Your task to perform on an android device: Is it going to rain today? Image 0: 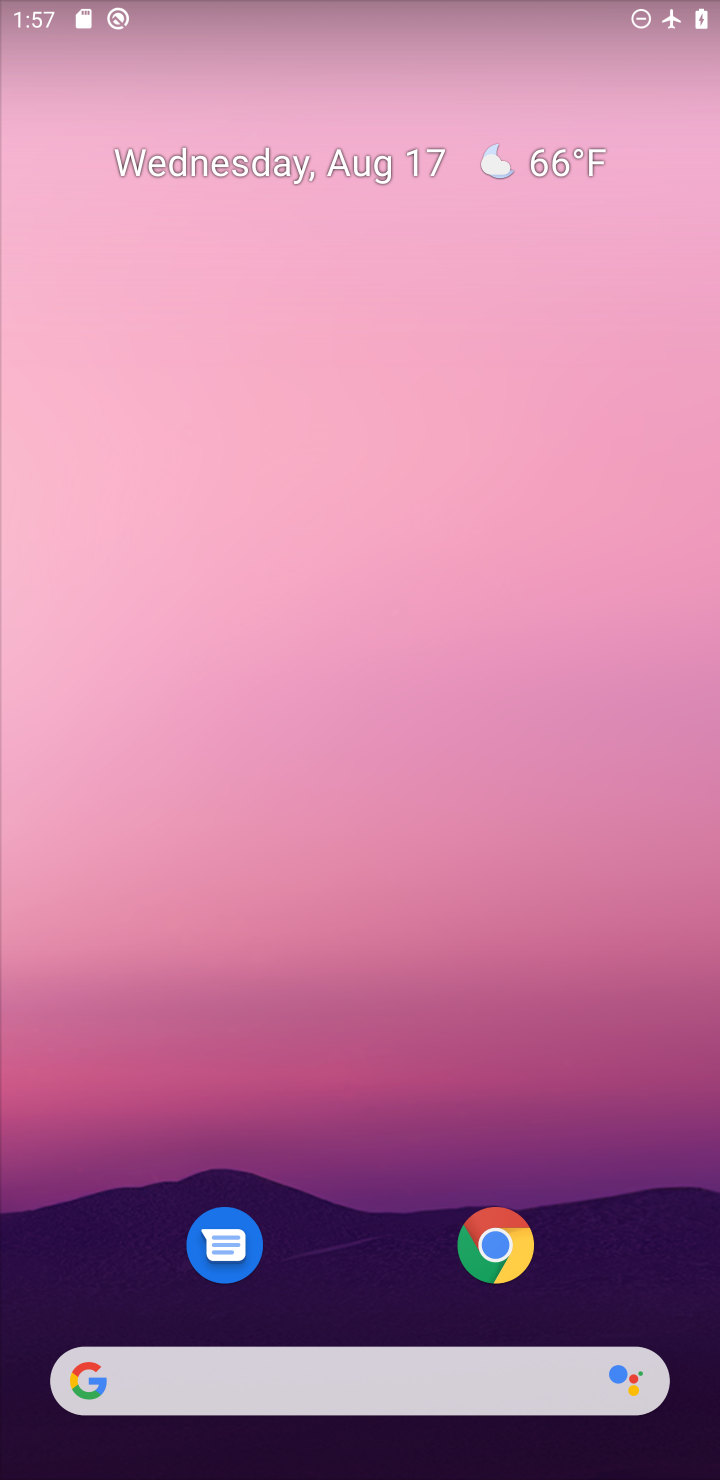
Step 0: drag from (333, 1328) to (333, 421)
Your task to perform on an android device: Is it going to rain today? Image 1: 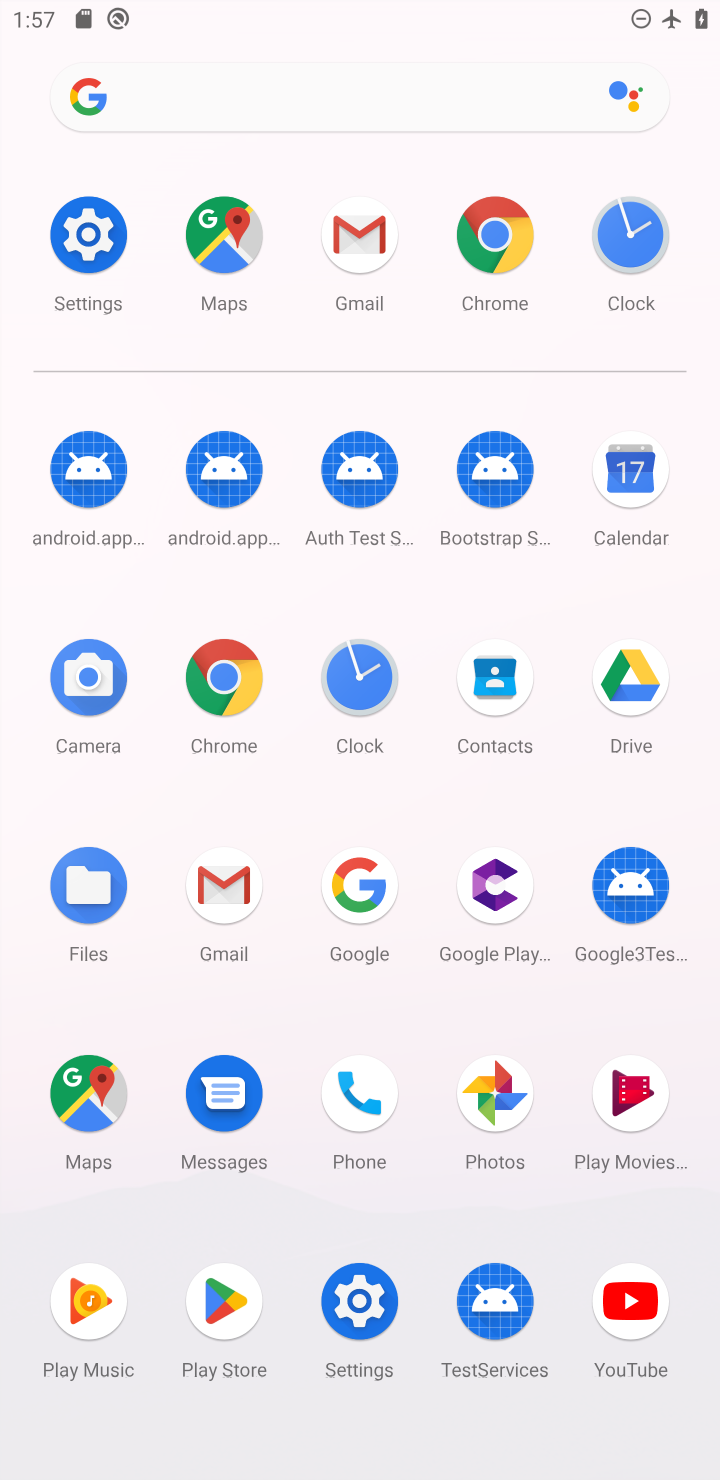
Step 1: click (355, 881)
Your task to perform on an android device: Is it going to rain today? Image 2: 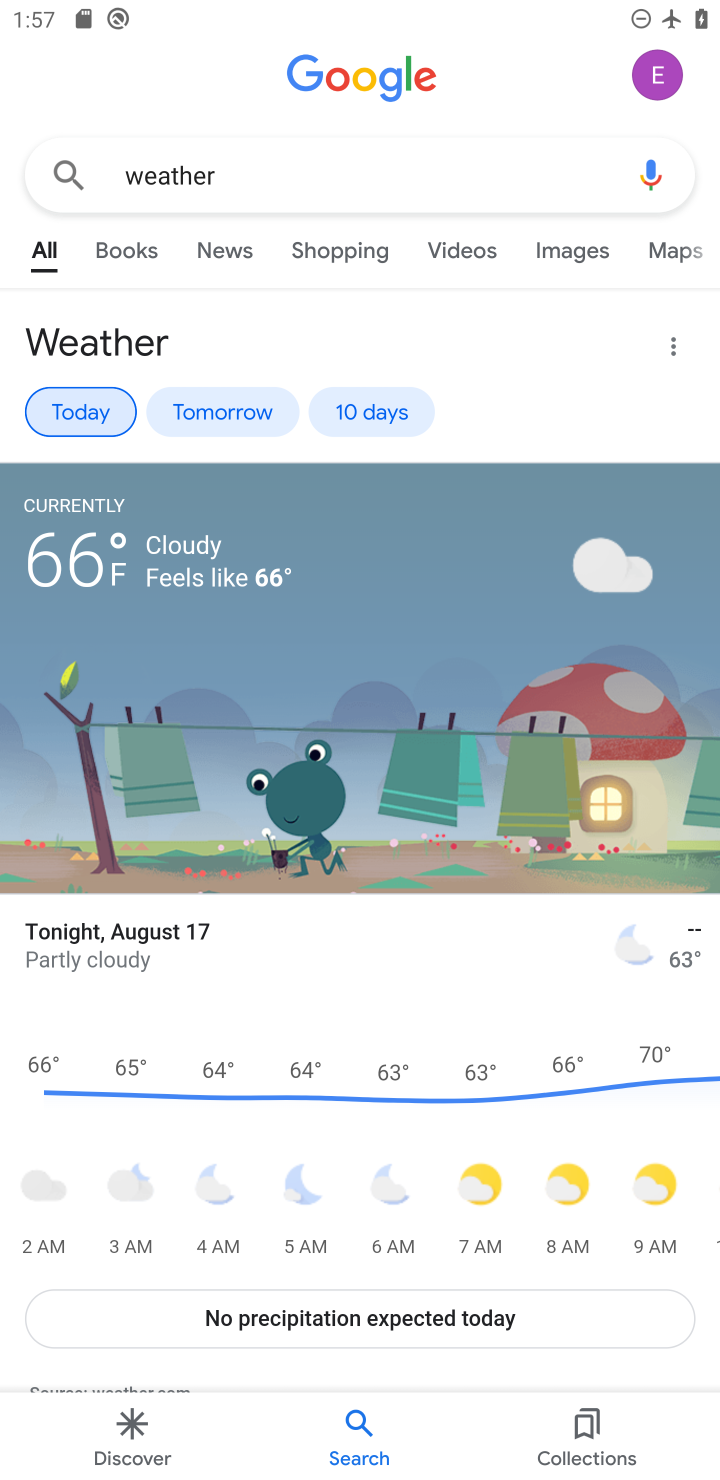
Step 2: click (68, 410)
Your task to perform on an android device: Is it going to rain today? Image 3: 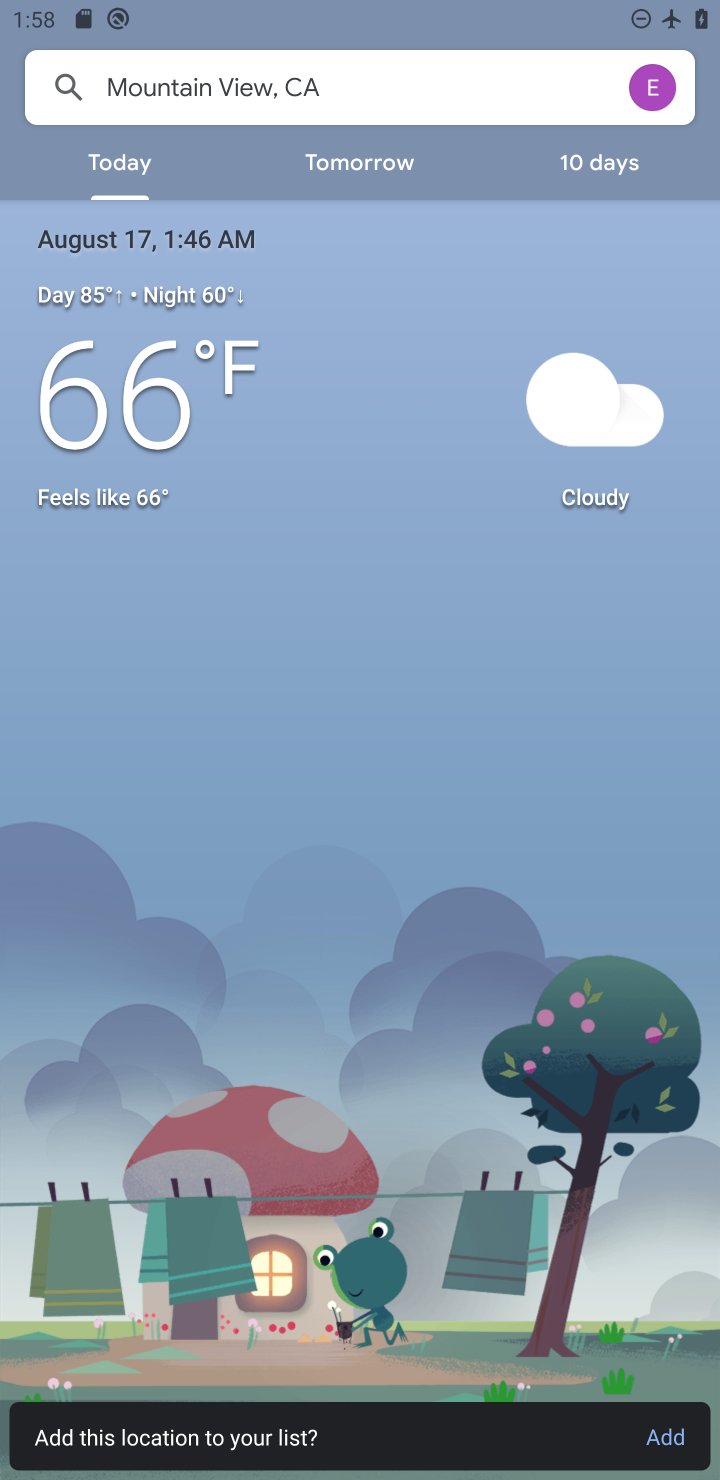
Step 3: task complete